Your task to perform on an android device: Open location settings Image 0: 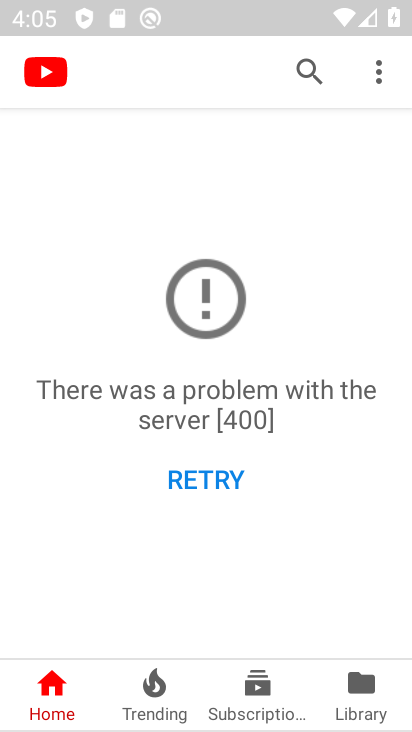
Step 0: press home button
Your task to perform on an android device: Open location settings Image 1: 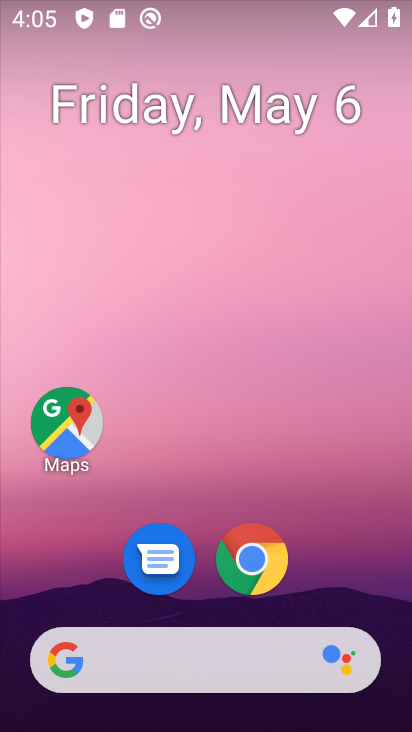
Step 1: drag from (71, 630) to (290, 123)
Your task to perform on an android device: Open location settings Image 2: 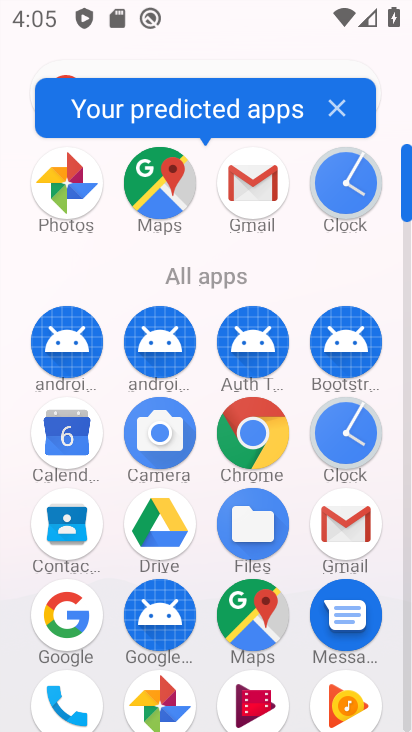
Step 2: drag from (156, 630) to (240, 361)
Your task to perform on an android device: Open location settings Image 3: 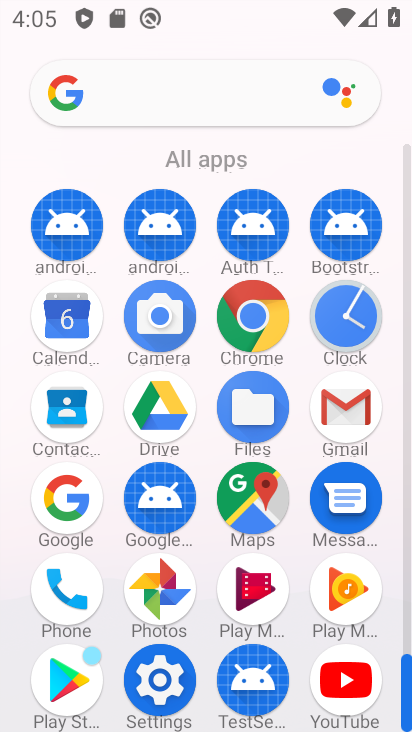
Step 3: click (161, 681)
Your task to perform on an android device: Open location settings Image 4: 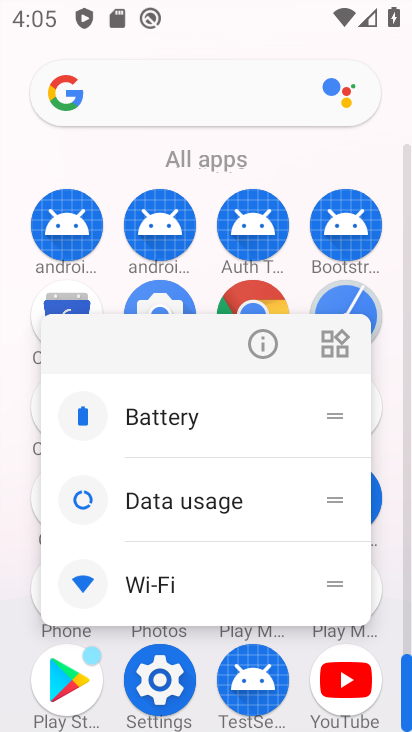
Step 4: click (151, 695)
Your task to perform on an android device: Open location settings Image 5: 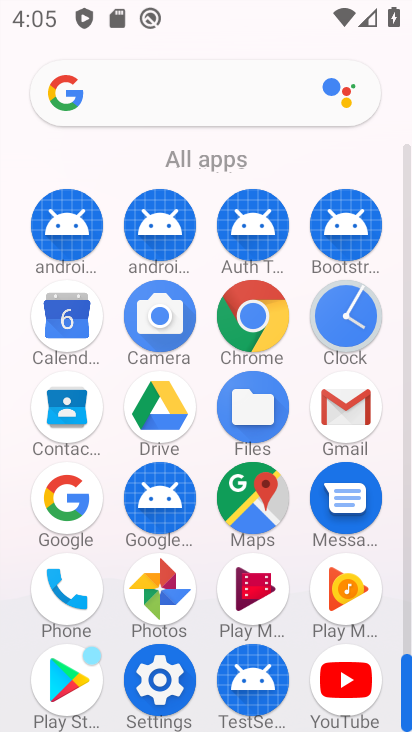
Step 5: click (160, 695)
Your task to perform on an android device: Open location settings Image 6: 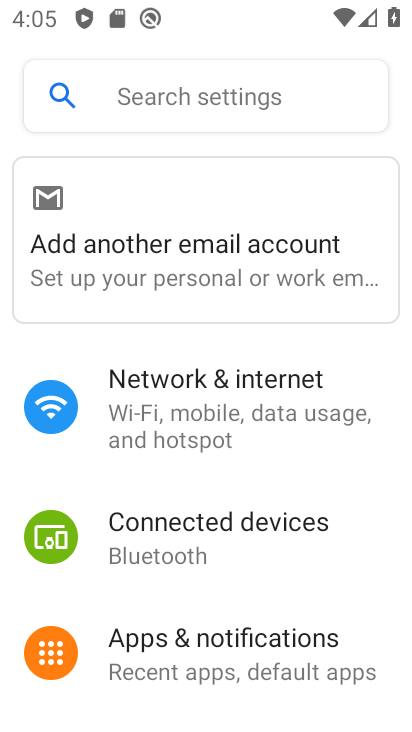
Step 6: drag from (215, 686) to (321, 323)
Your task to perform on an android device: Open location settings Image 7: 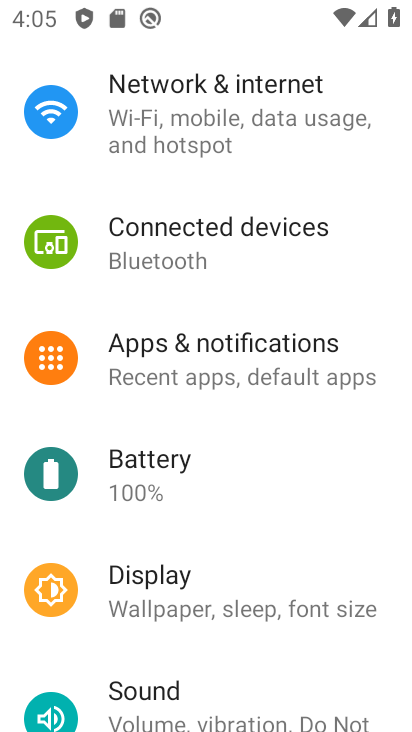
Step 7: drag from (210, 682) to (350, 286)
Your task to perform on an android device: Open location settings Image 8: 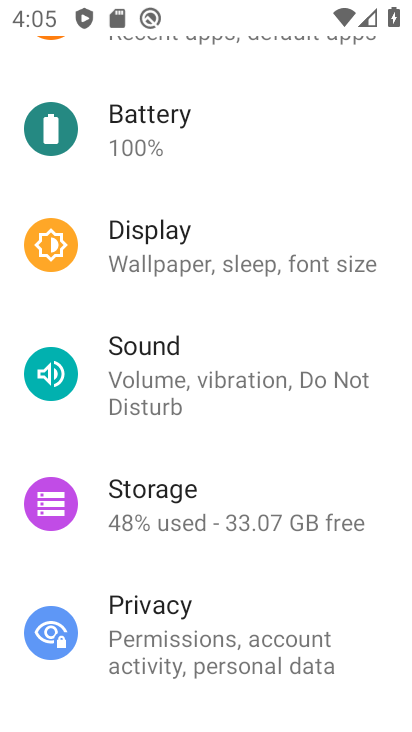
Step 8: drag from (115, 695) to (211, 291)
Your task to perform on an android device: Open location settings Image 9: 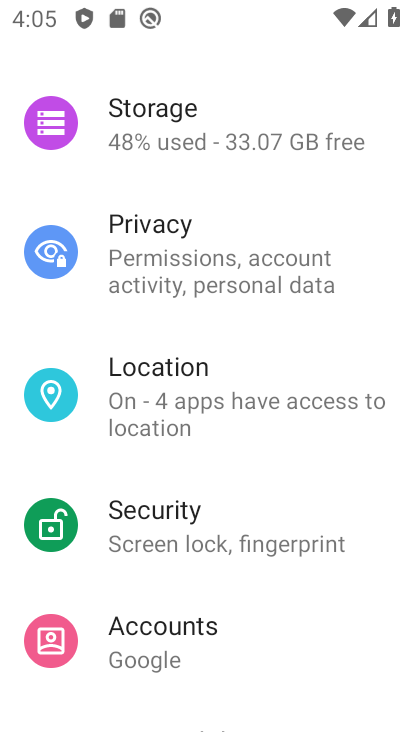
Step 9: click (161, 393)
Your task to perform on an android device: Open location settings Image 10: 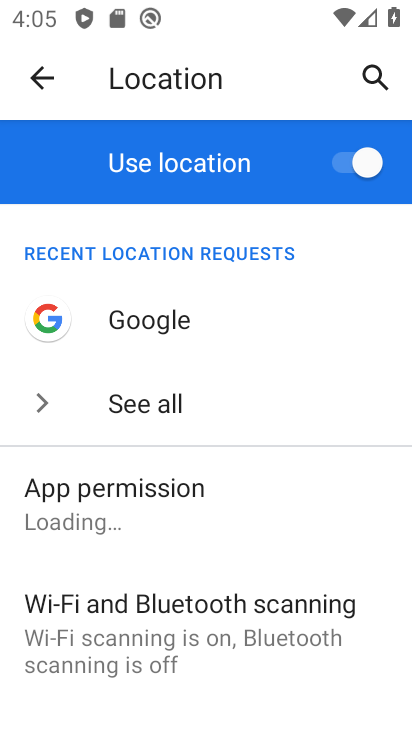
Step 10: task complete